Your task to perform on an android device: Go to accessibility settings Image 0: 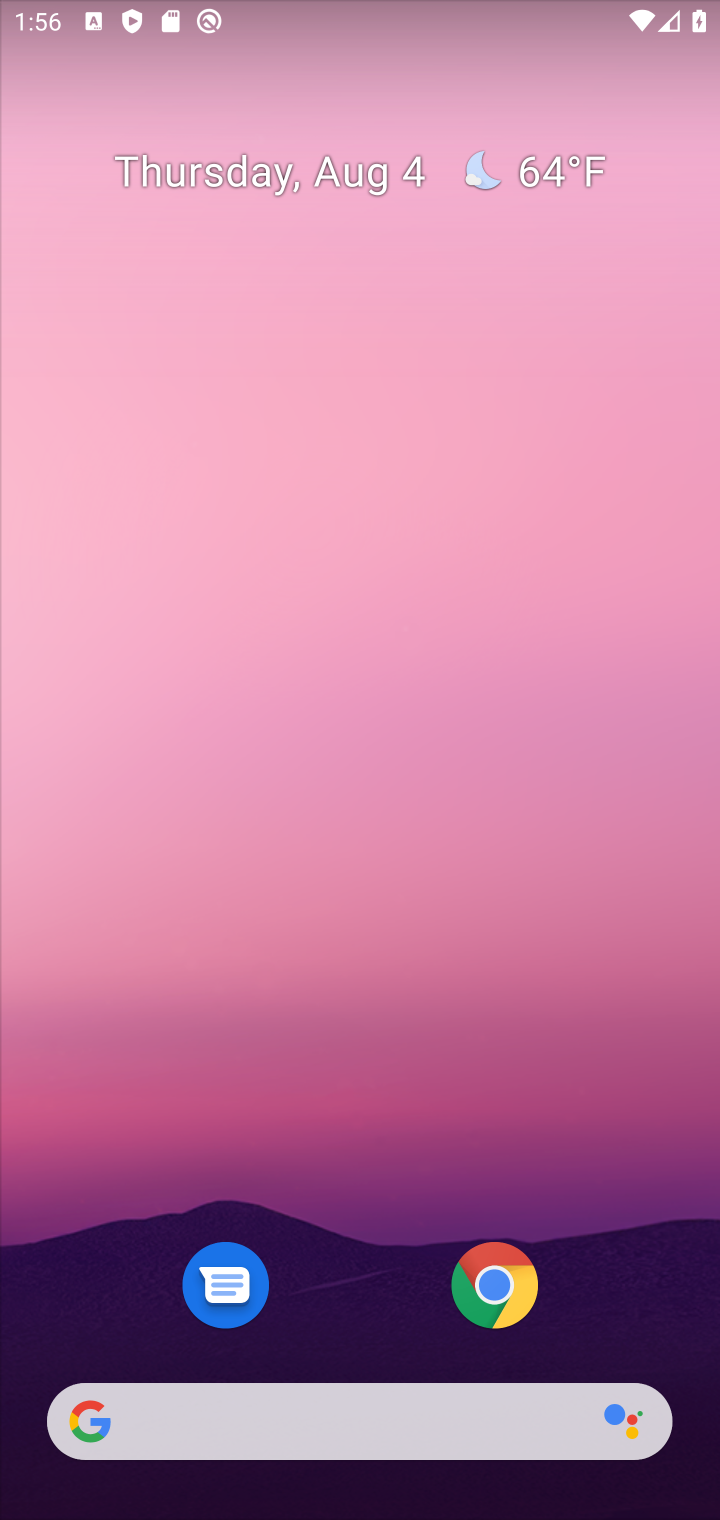
Step 0: drag from (677, 1329) to (592, 322)
Your task to perform on an android device: Go to accessibility settings Image 1: 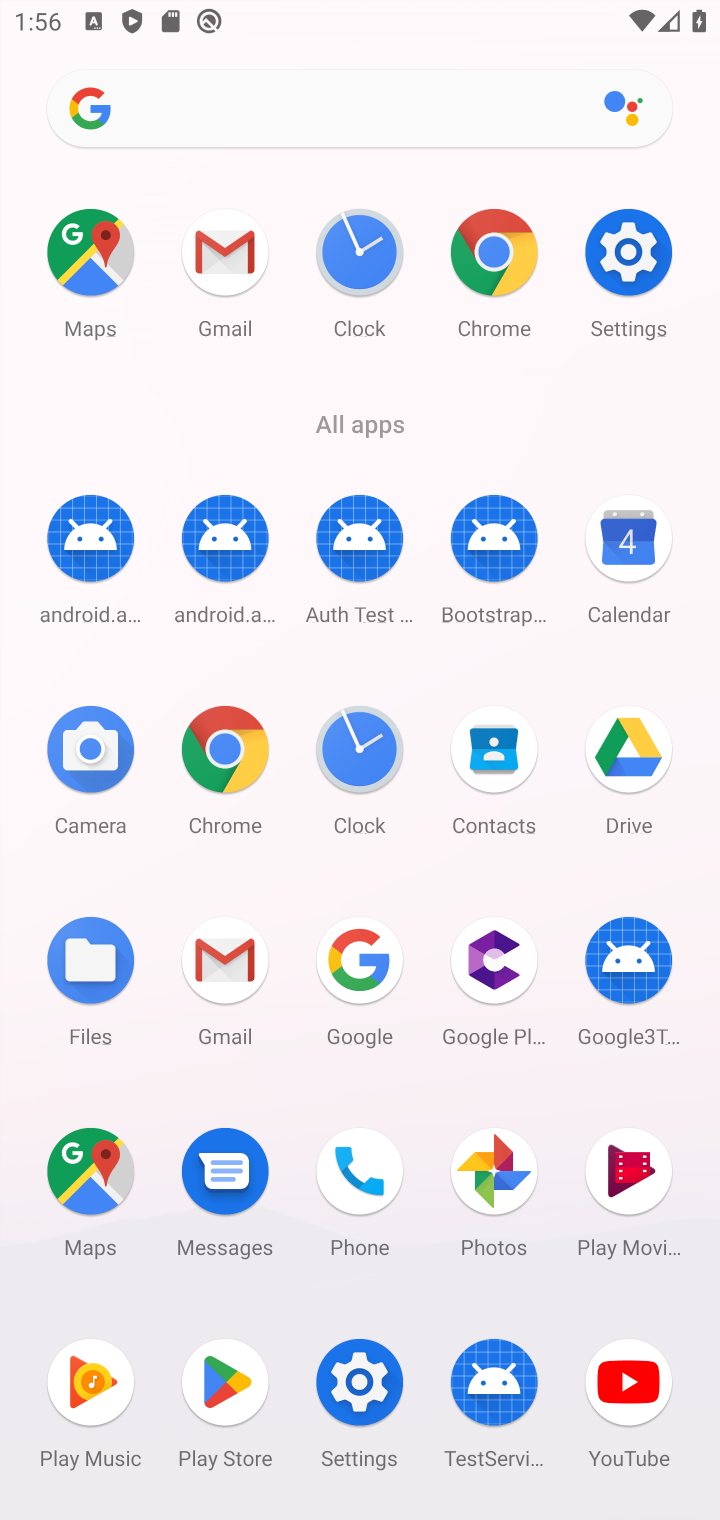
Step 1: click (360, 1379)
Your task to perform on an android device: Go to accessibility settings Image 2: 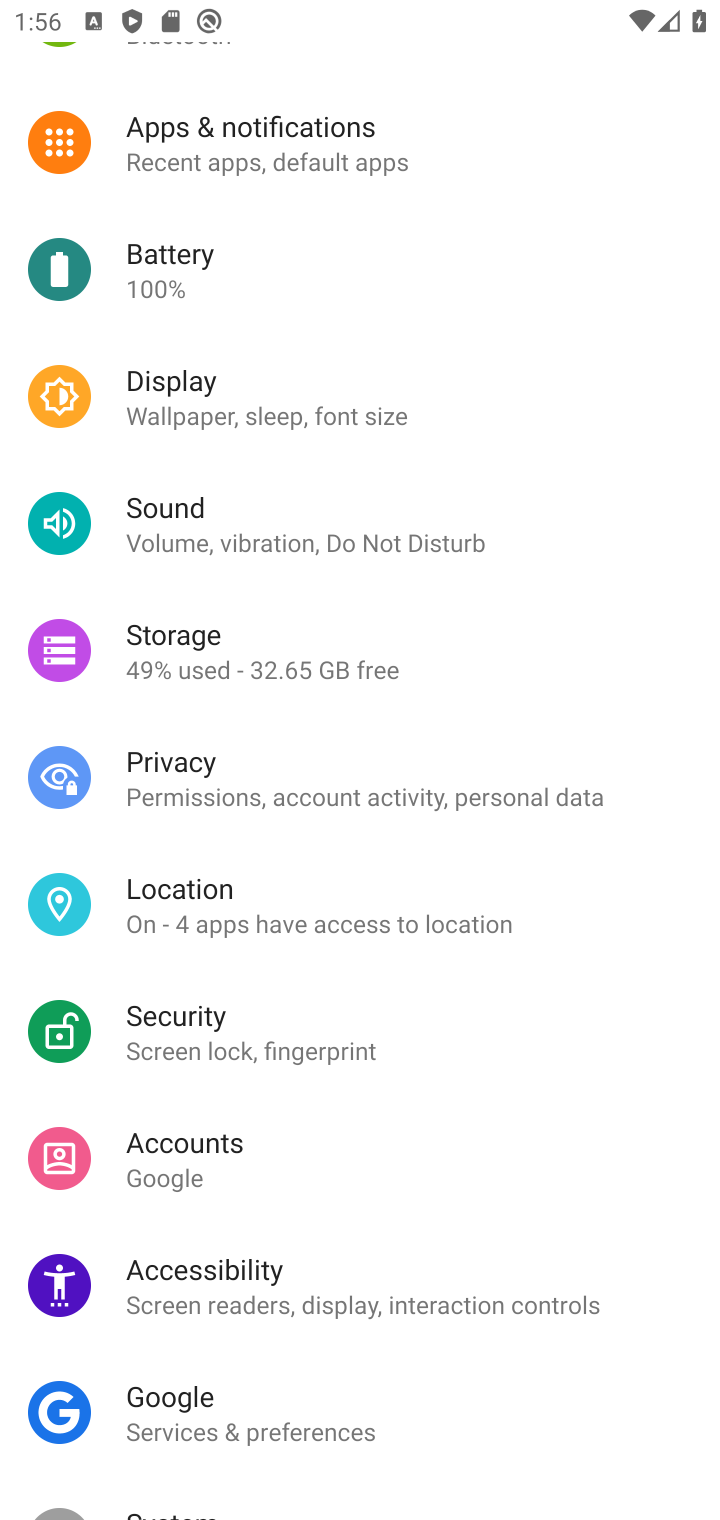
Step 2: drag from (604, 1187) to (553, 587)
Your task to perform on an android device: Go to accessibility settings Image 3: 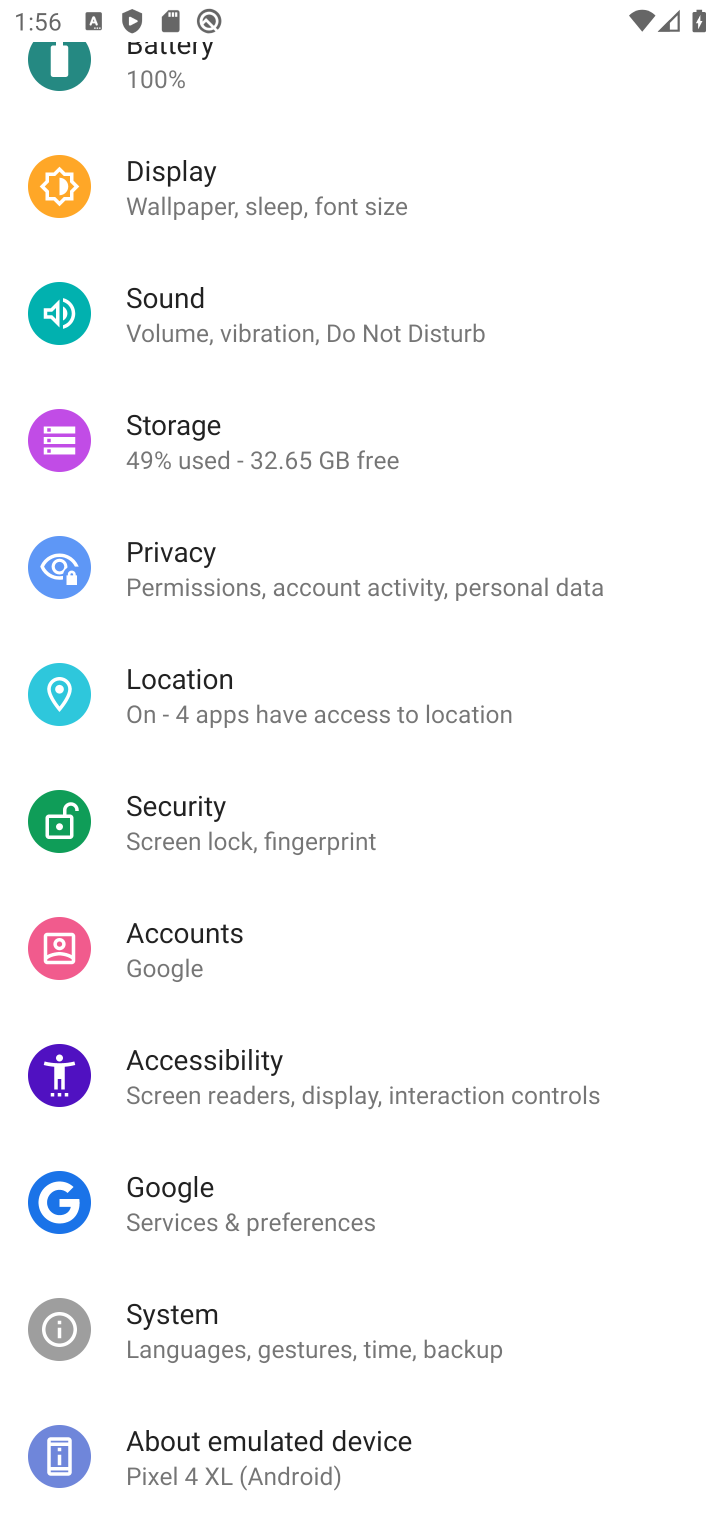
Step 3: click (192, 1076)
Your task to perform on an android device: Go to accessibility settings Image 4: 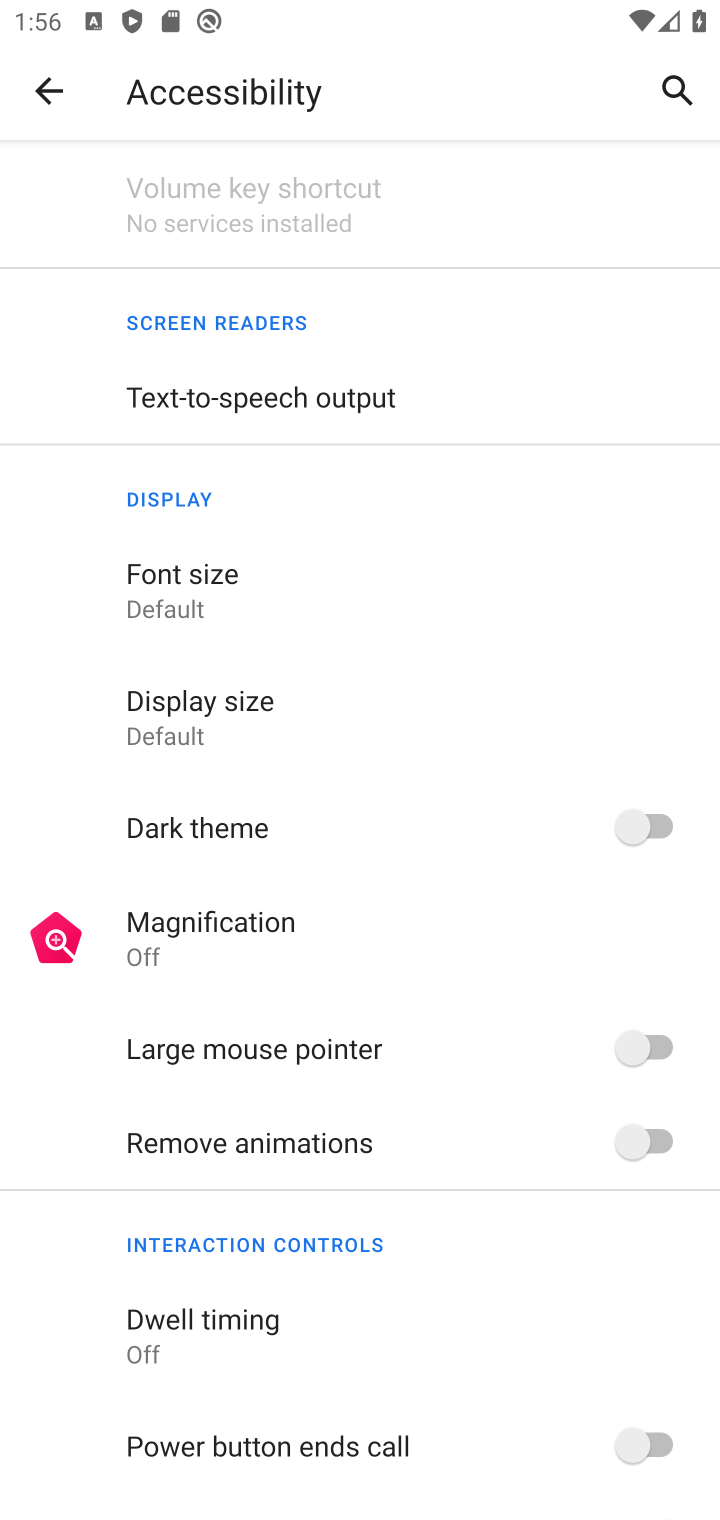
Step 4: task complete